Your task to perform on an android device: delete location history Image 0: 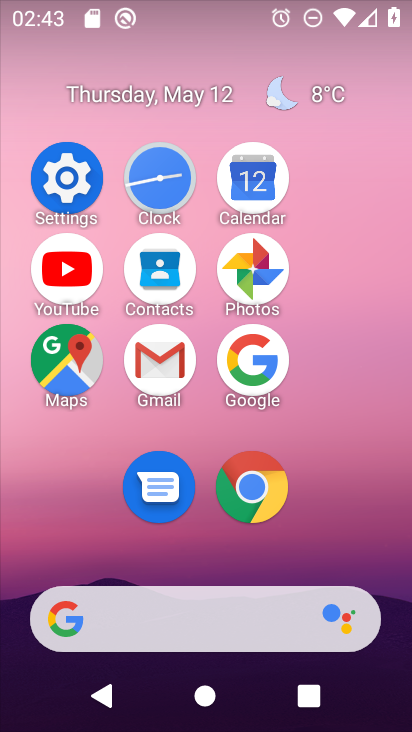
Step 0: click (62, 201)
Your task to perform on an android device: delete location history Image 1: 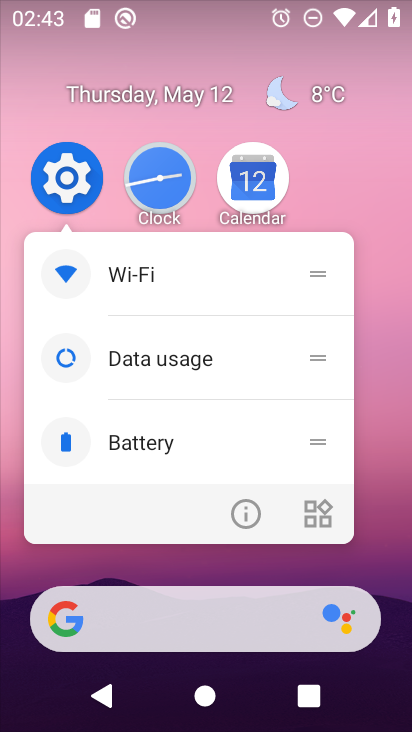
Step 1: click (84, 193)
Your task to perform on an android device: delete location history Image 2: 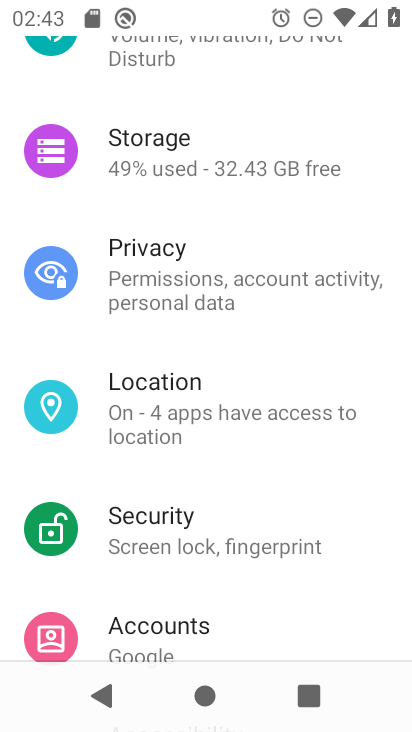
Step 2: click (179, 382)
Your task to perform on an android device: delete location history Image 3: 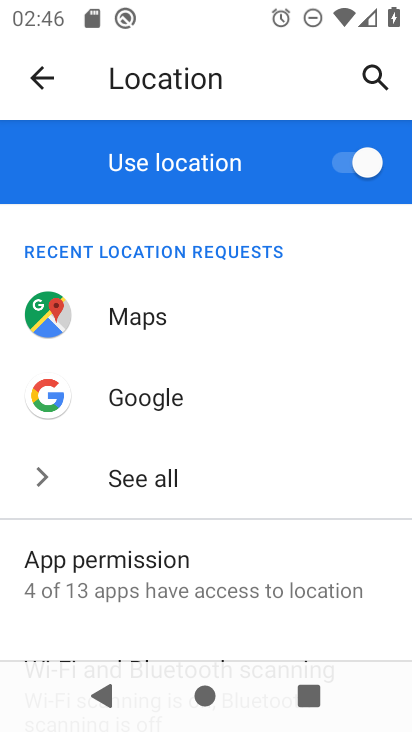
Step 3: drag from (245, 646) to (195, 233)
Your task to perform on an android device: delete location history Image 4: 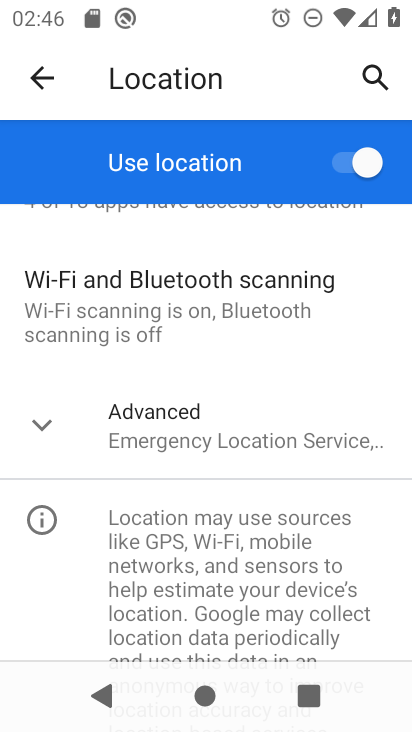
Step 4: click (212, 443)
Your task to perform on an android device: delete location history Image 5: 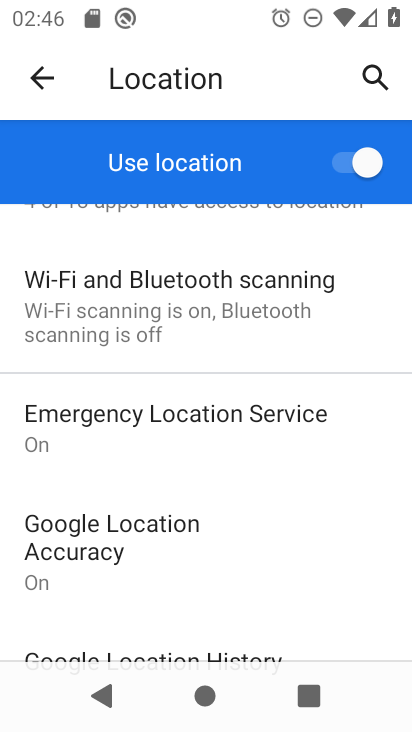
Step 5: drag from (252, 617) to (274, 361)
Your task to perform on an android device: delete location history Image 6: 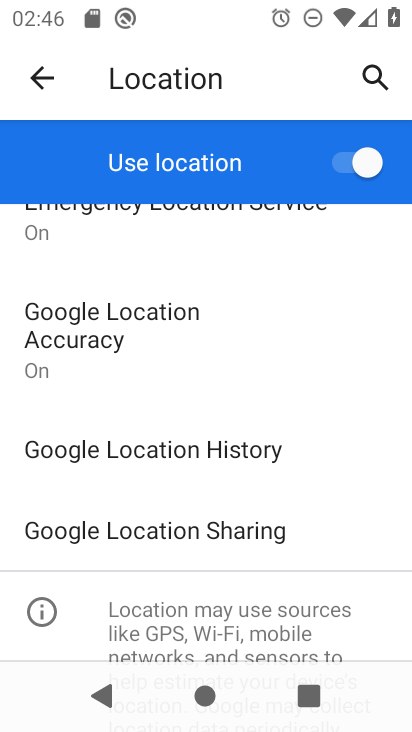
Step 6: click (257, 436)
Your task to perform on an android device: delete location history Image 7: 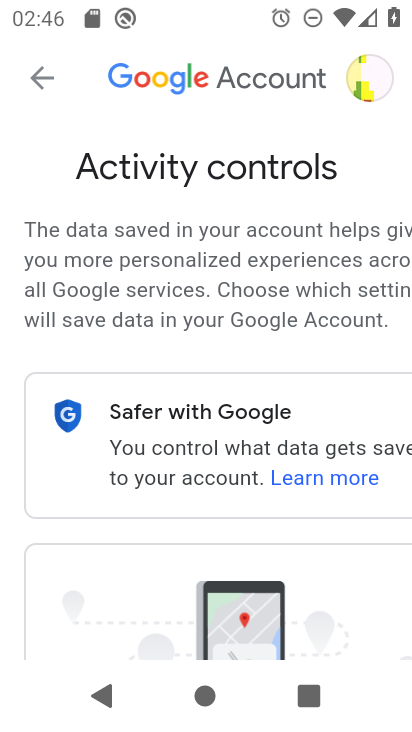
Step 7: drag from (292, 581) to (271, 234)
Your task to perform on an android device: delete location history Image 8: 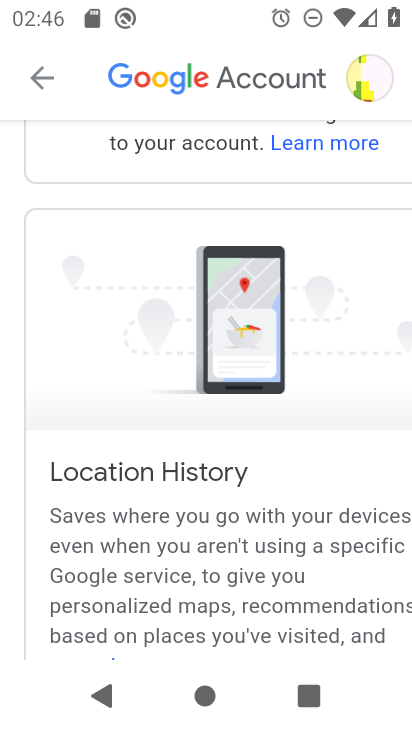
Step 8: drag from (300, 530) to (311, 193)
Your task to perform on an android device: delete location history Image 9: 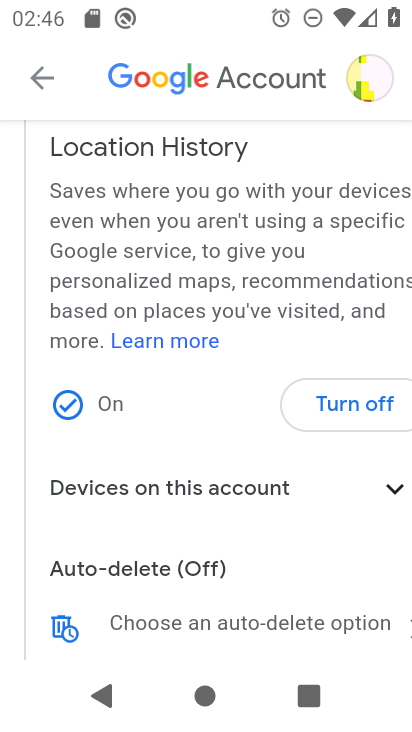
Step 9: drag from (300, 524) to (310, 205)
Your task to perform on an android device: delete location history Image 10: 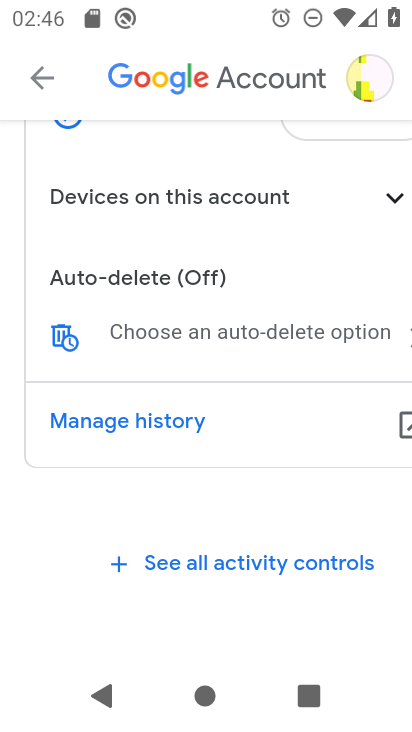
Step 10: click (65, 339)
Your task to perform on an android device: delete location history Image 11: 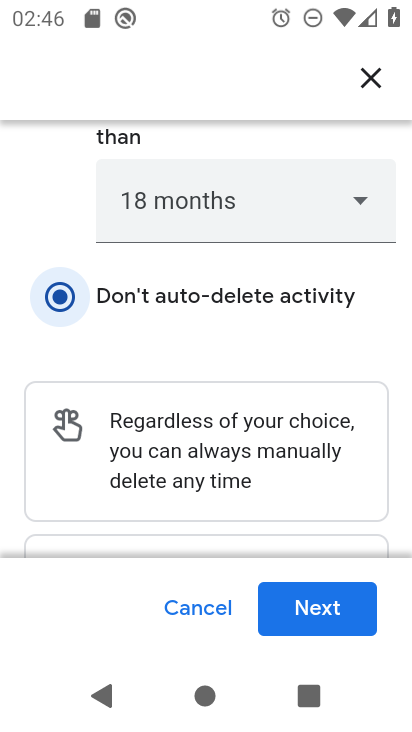
Step 11: click (314, 596)
Your task to perform on an android device: delete location history Image 12: 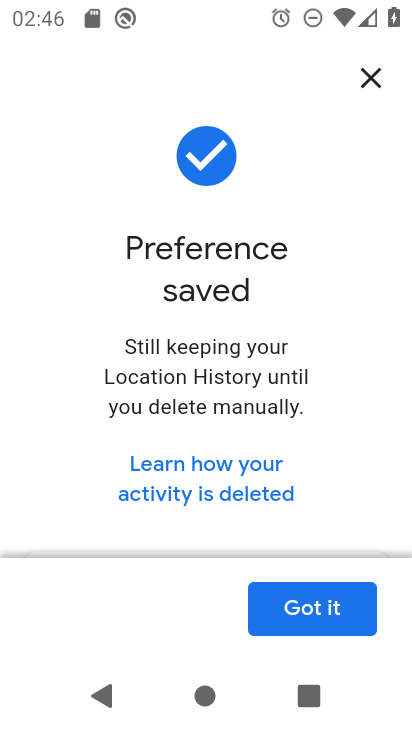
Step 12: click (320, 602)
Your task to perform on an android device: delete location history Image 13: 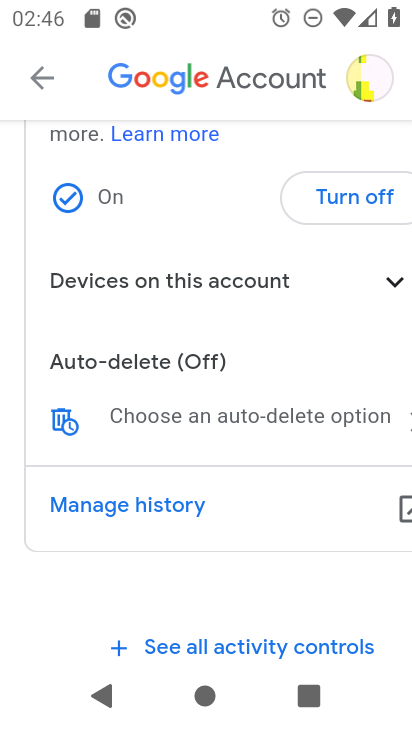
Step 13: task complete